Your task to perform on an android device: remove spam from my inbox in the gmail app Image 0: 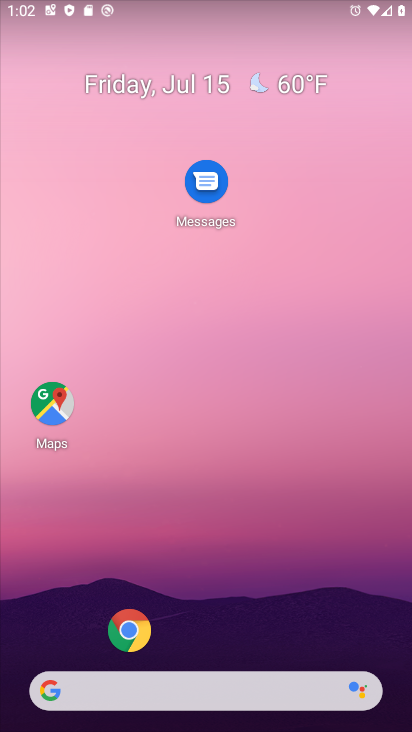
Step 0: drag from (38, 585) to (188, 152)
Your task to perform on an android device: remove spam from my inbox in the gmail app Image 1: 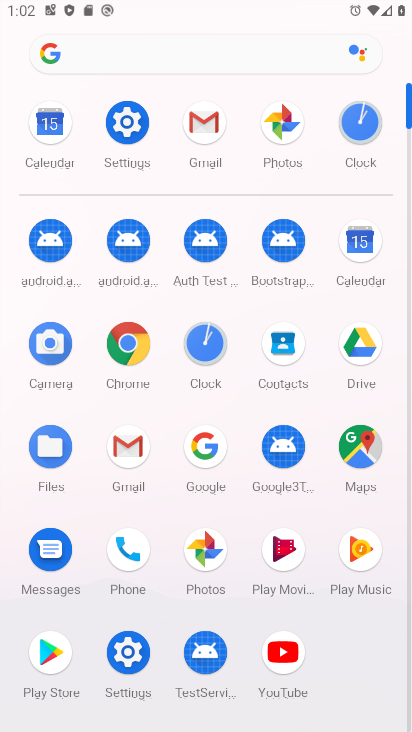
Step 1: click (126, 454)
Your task to perform on an android device: remove spam from my inbox in the gmail app Image 2: 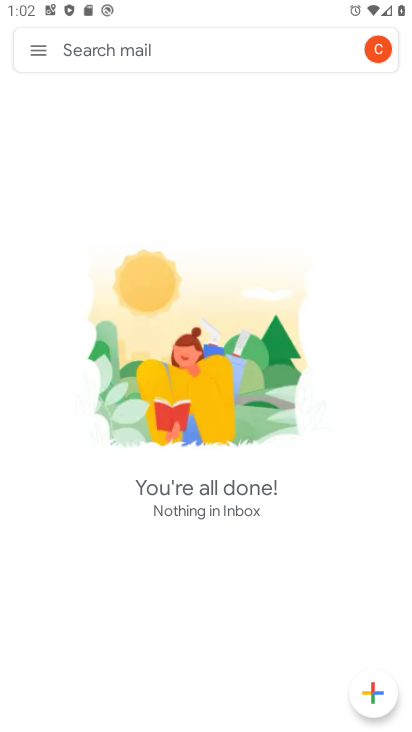
Step 2: click (33, 54)
Your task to perform on an android device: remove spam from my inbox in the gmail app Image 3: 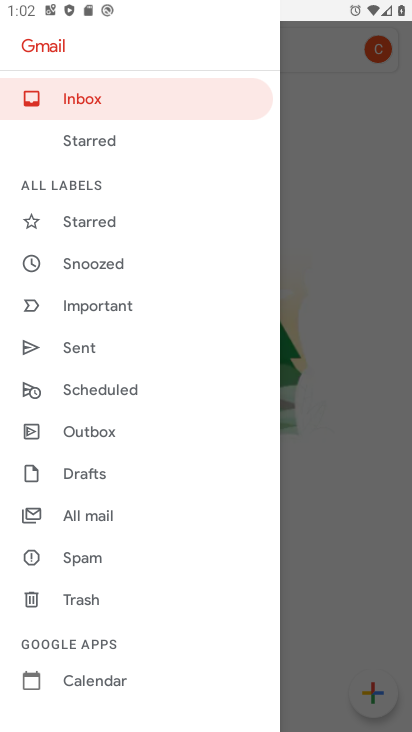
Step 3: click (111, 556)
Your task to perform on an android device: remove spam from my inbox in the gmail app Image 4: 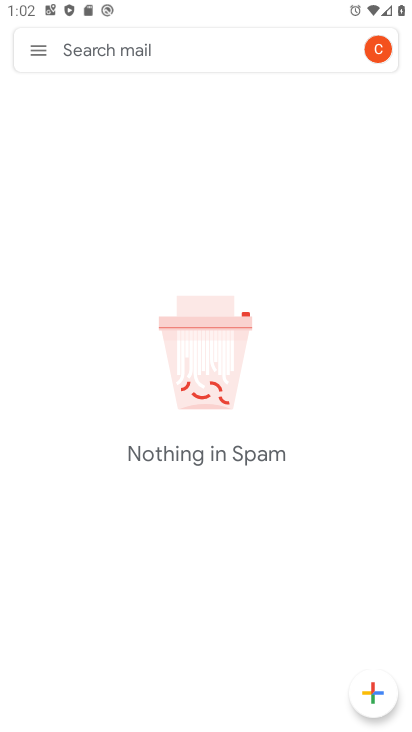
Step 4: task complete